Your task to perform on an android device: What is the news today? Image 0: 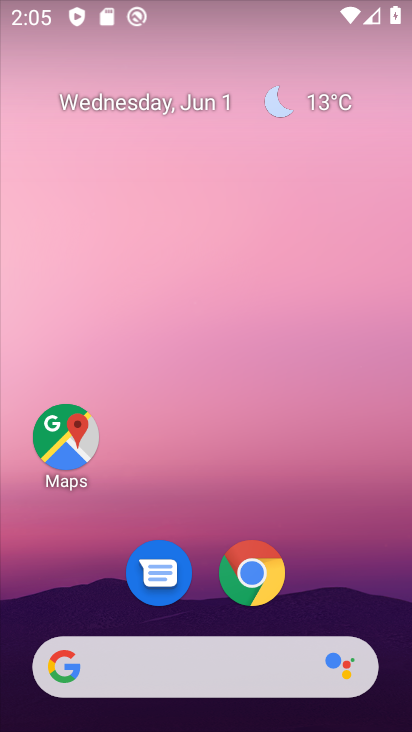
Step 0: click (205, 671)
Your task to perform on an android device: What is the news today? Image 1: 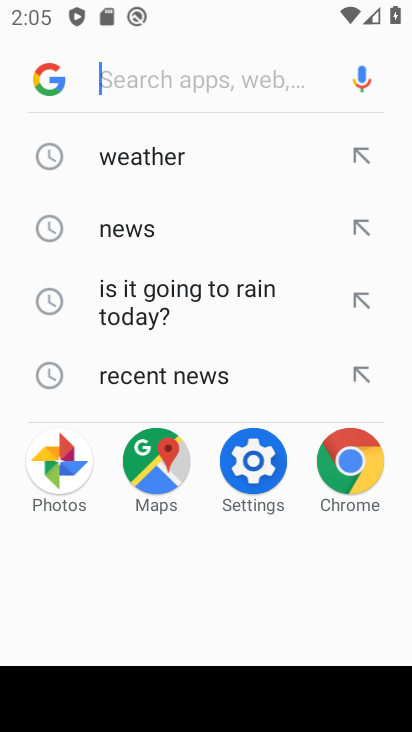
Step 1: click (127, 228)
Your task to perform on an android device: What is the news today? Image 2: 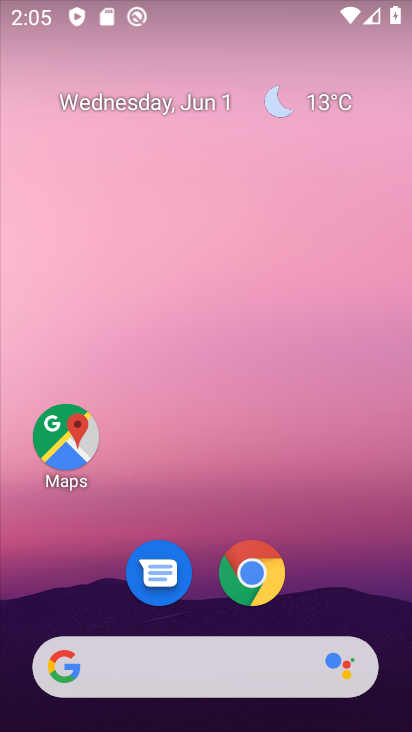
Step 2: click (189, 642)
Your task to perform on an android device: What is the news today? Image 3: 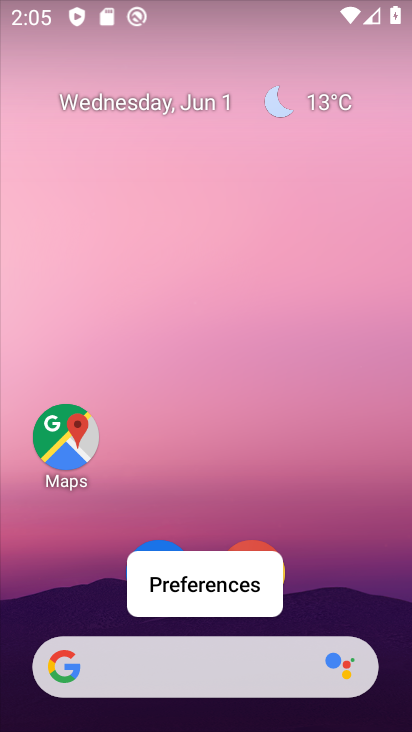
Step 3: click (220, 638)
Your task to perform on an android device: What is the news today? Image 4: 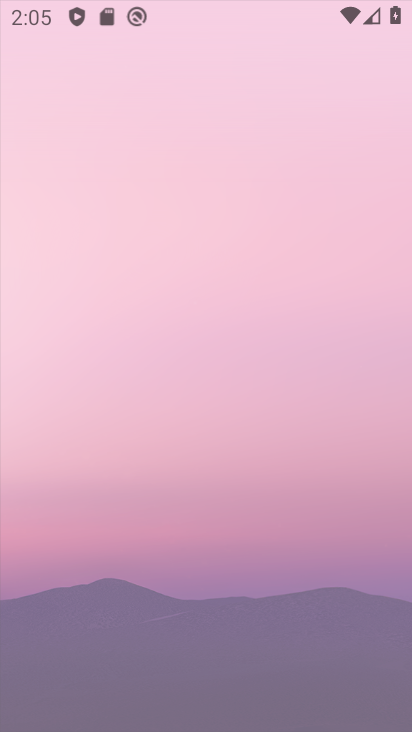
Step 4: click (199, 682)
Your task to perform on an android device: What is the news today? Image 5: 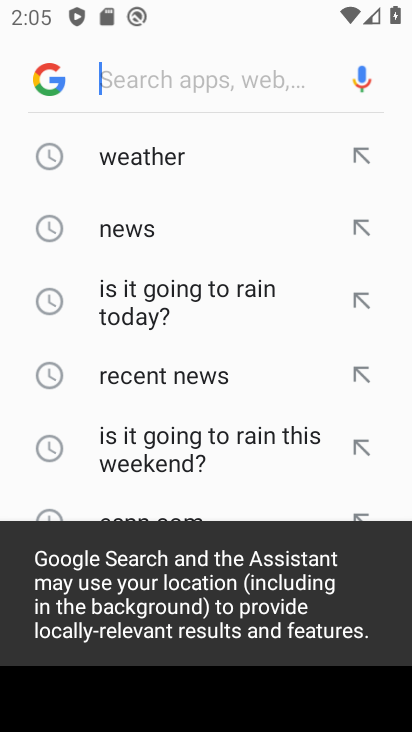
Step 5: click (145, 226)
Your task to perform on an android device: What is the news today? Image 6: 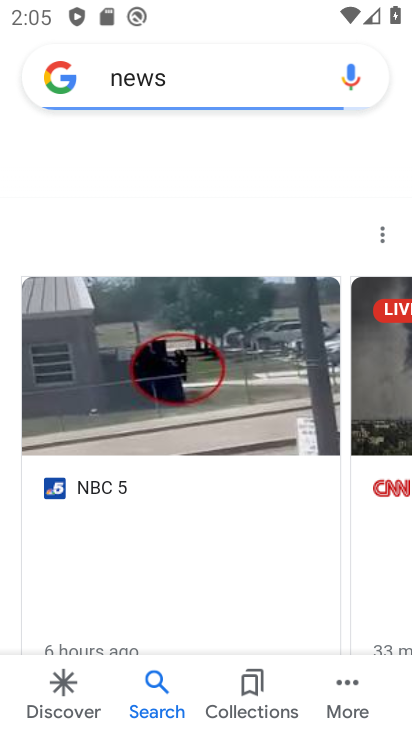
Step 6: task complete